Your task to perform on an android device: open chrome privacy settings Image 0: 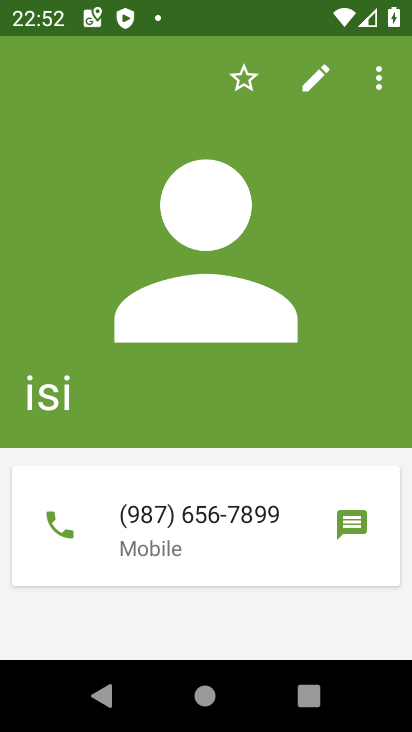
Step 0: press home button
Your task to perform on an android device: open chrome privacy settings Image 1: 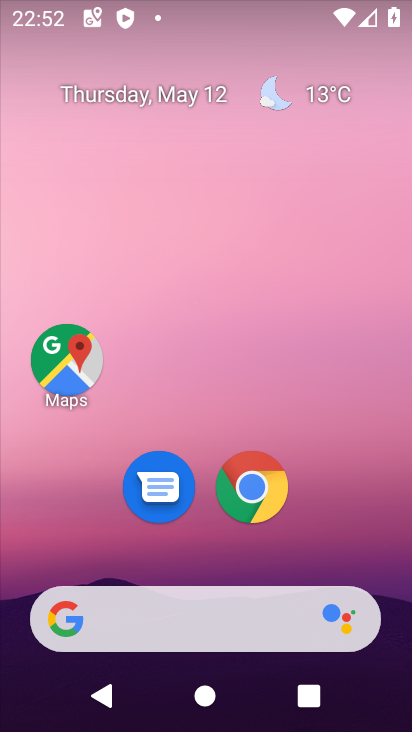
Step 1: click (264, 481)
Your task to perform on an android device: open chrome privacy settings Image 2: 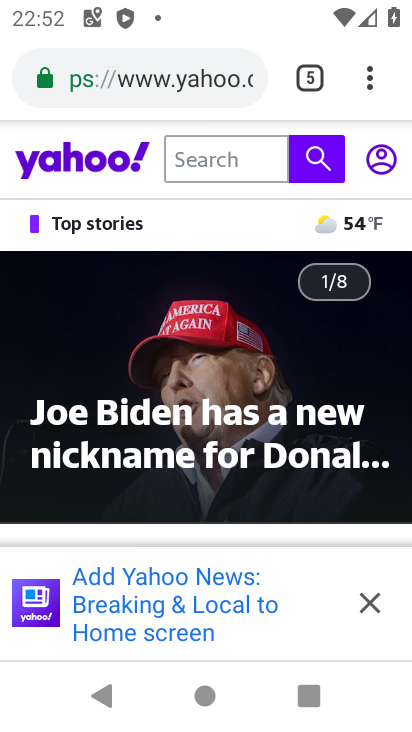
Step 2: click (362, 68)
Your task to perform on an android device: open chrome privacy settings Image 3: 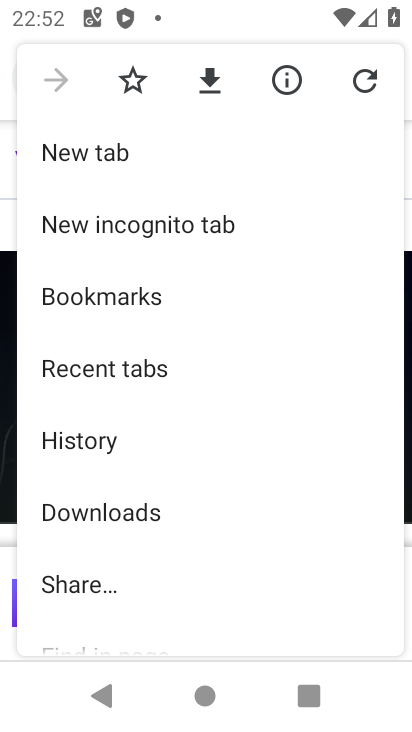
Step 3: drag from (84, 533) to (222, 63)
Your task to perform on an android device: open chrome privacy settings Image 4: 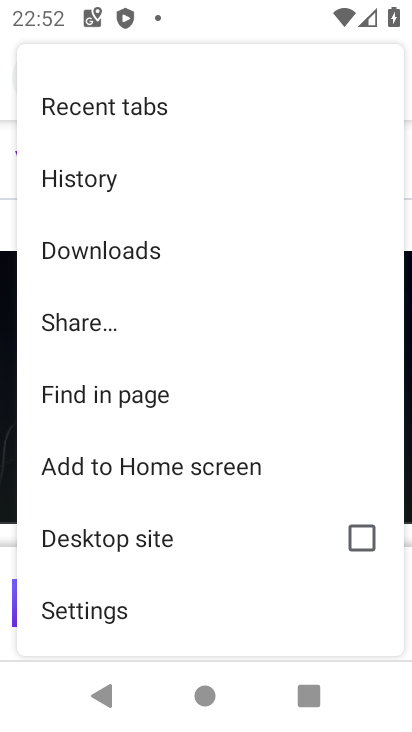
Step 4: click (106, 614)
Your task to perform on an android device: open chrome privacy settings Image 5: 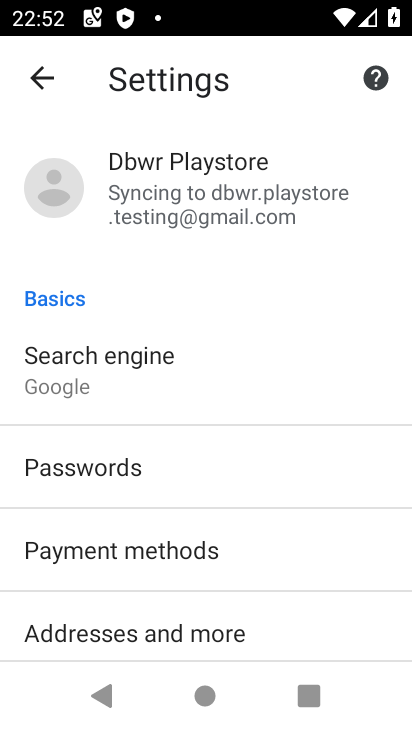
Step 5: drag from (181, 609) to (190, 166)
Your task to perform on an android device: open chrome privacy settings Image 6: 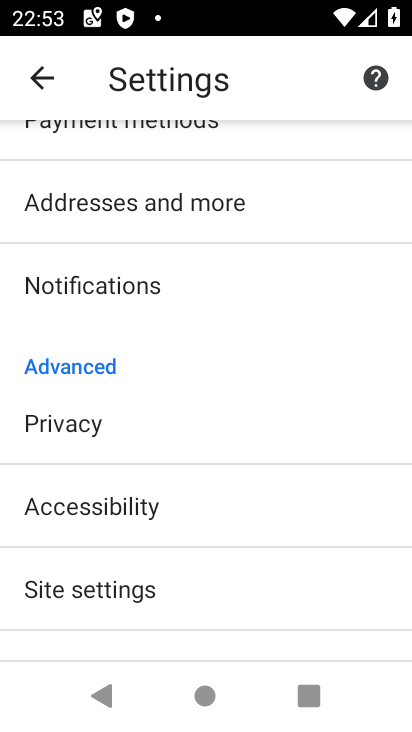
Step 6: click (83, 444)
Your task to perform on an android device: open chrome privacy settings Image 7: 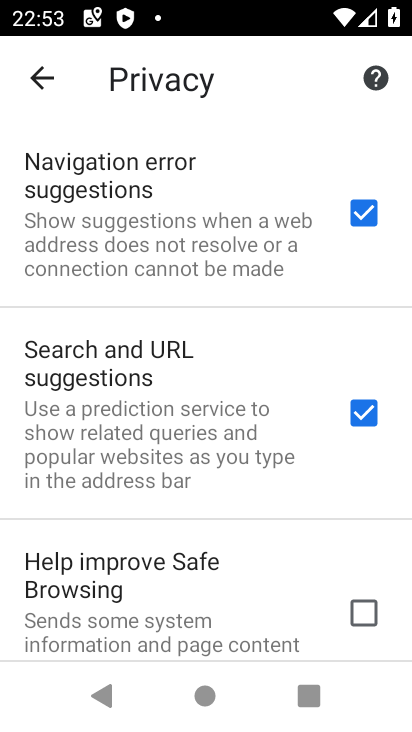
Step 7: click (83, 444)
Your task to perform on an android device: open chrome privacy settings Image 8: 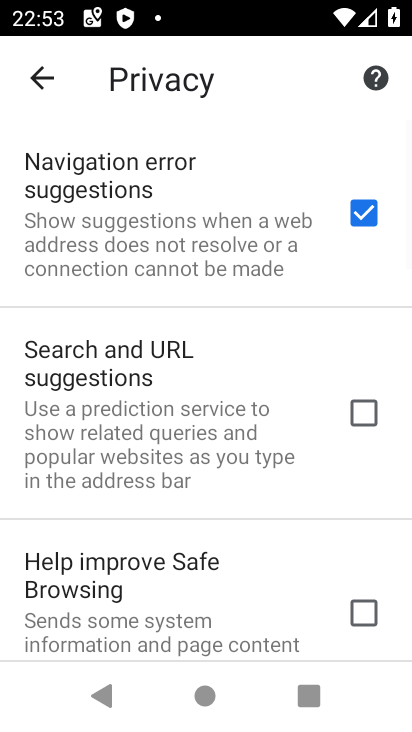
Step 8: task complete